Your task to perform on an android device: Open Google Image 0: 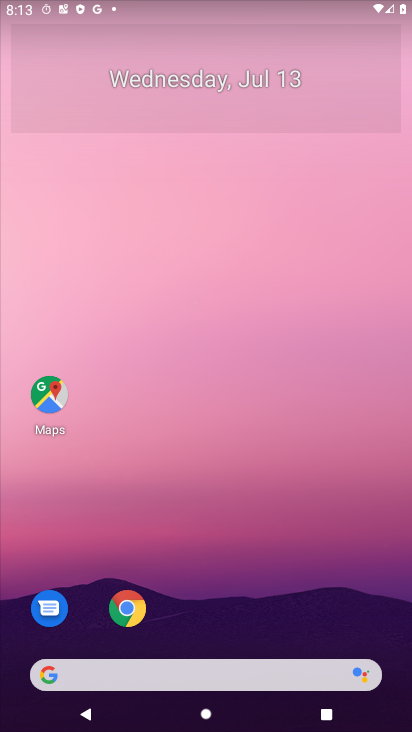
Step 0: drag from (266, 612) to (212, 191)
Your task to perform on an android device: Open Google Image 1: 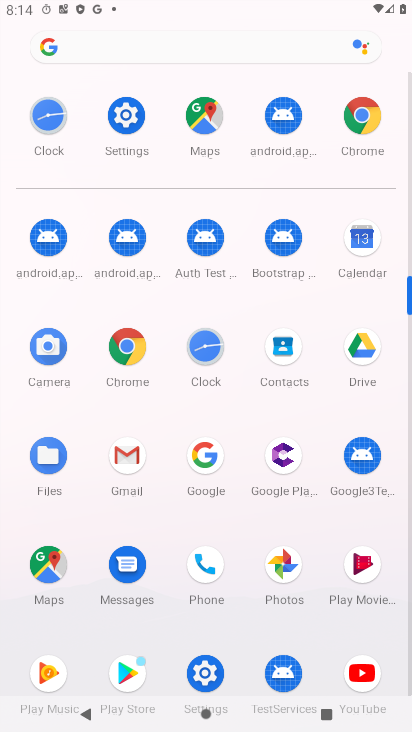
Step 1: click (203, 461)
Your task to perform on an android device: Open Google Image 2: 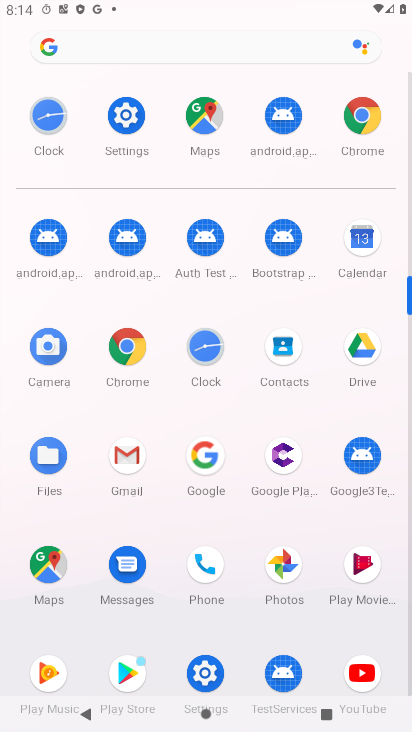
Step 2: click (203, 461)
Your task to perform on an android device: Open Google Image 3: 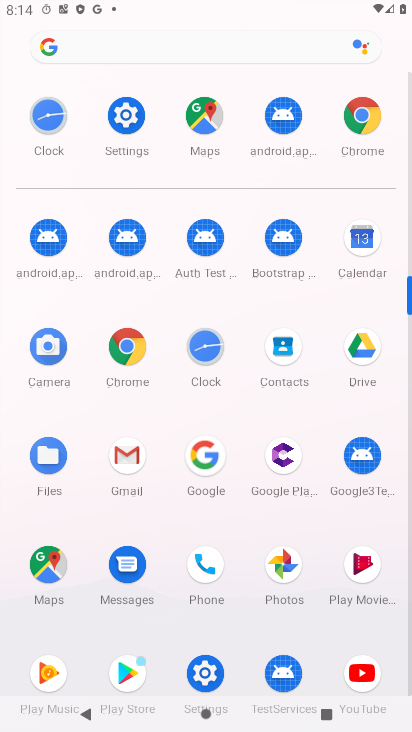
Step 3: click (203, 461)
Your task to perform on an android device: Open Google Image 4: 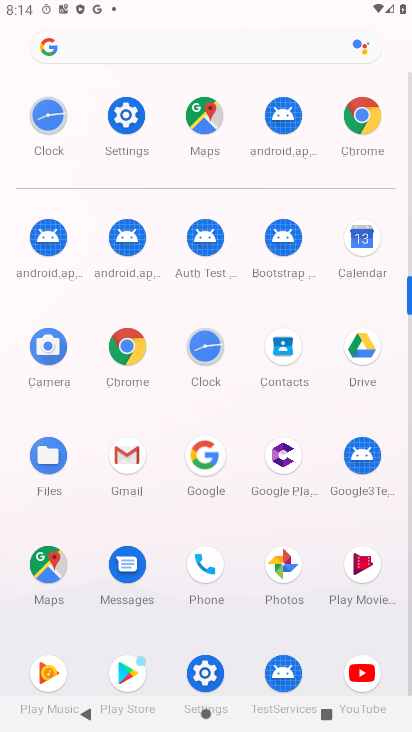
Step 4: click (202, 459)
Your task to perform on an android device: Open Google Image 5: 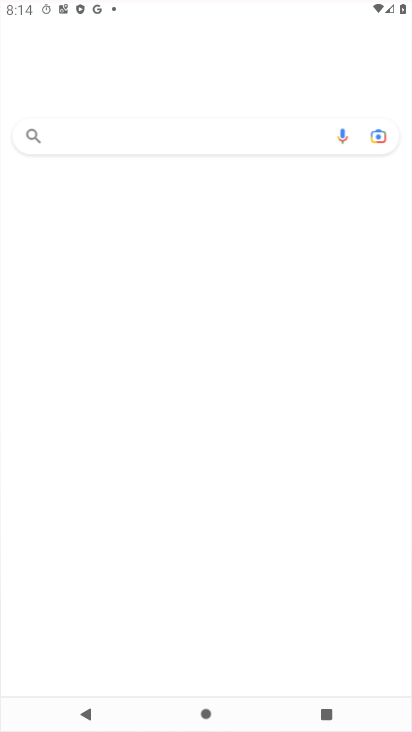
Step 5: click (202, 457)
Your task to perform on an android device: Open Google Image 6: 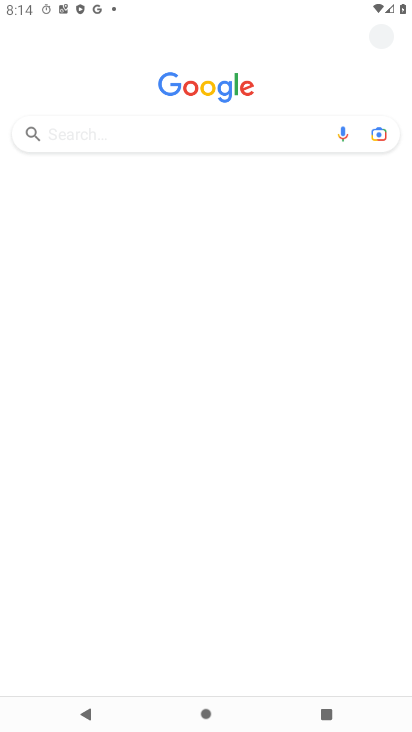
Step 6: click (194, 455)
Your task to perform on an android device: Open Google Image 7: 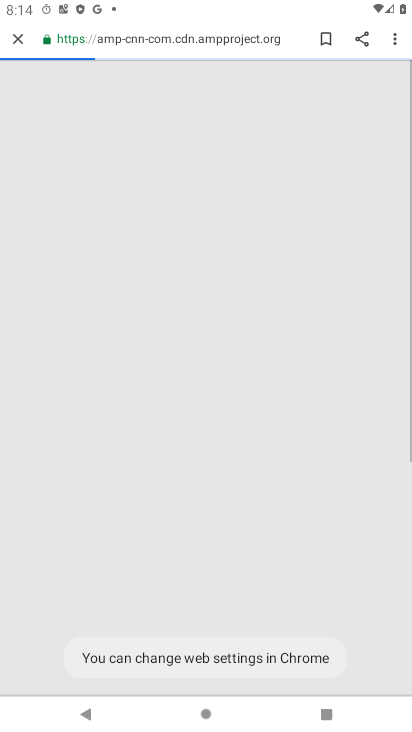
Step 7: task complete